Your task to perform on an android device: Search for seafood restaurants on Google Maps Image 0: 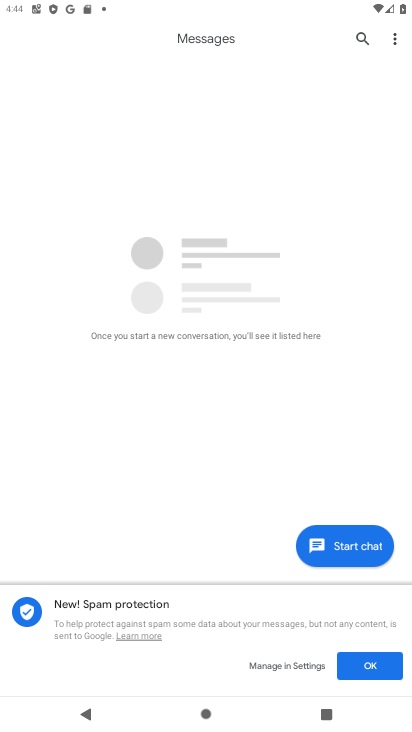
Step 0: press home button
Your task to perform on an android device: Search for seafood restaurants on Google Maps Image 1: 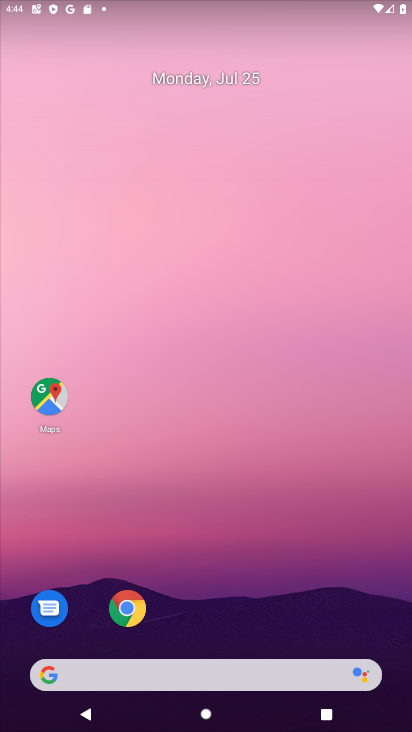
Step 1: click (46, 396)
Your task to perform on an android device: Search for seafood restaurants on Google Maps Image 2: 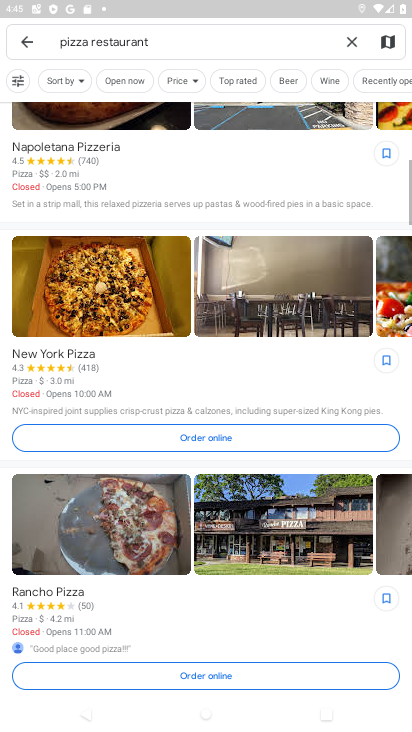
Step 2: click (353, 41)
Your task to perform on an android device: Search for seafood restaurants on Google Maps Image 3: 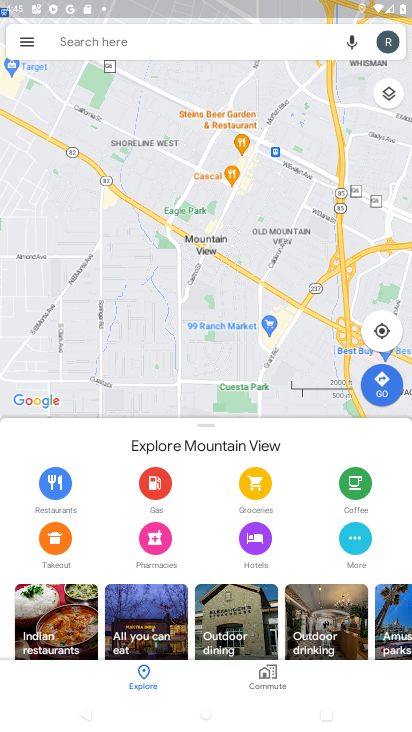
Step 3: click (109, 41)
Your task to perform on an android device: Search for seafood restaurants on Google Maps Image 4: 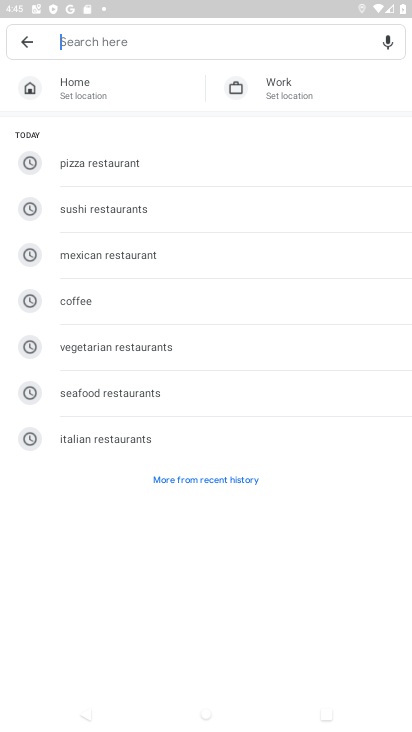
Step 4: click (74, 41)
Your task to perform on an android device: Search for seafood restaurants on Google Maps Image 5: 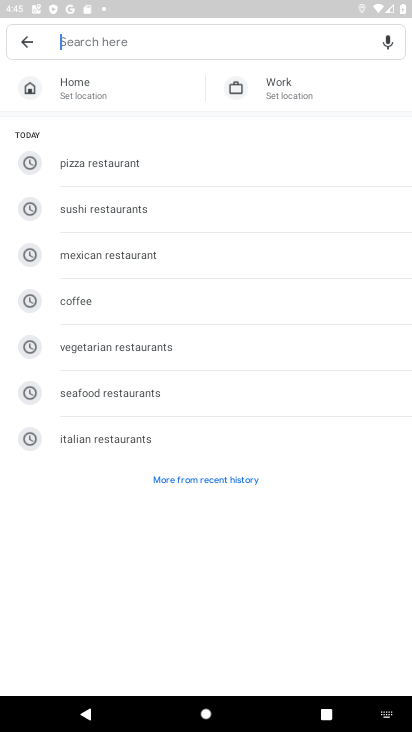
Step 5: click (126, 396)
Your task to perform on an android device: Search for seafood restaurants on Google Maps Image 6: 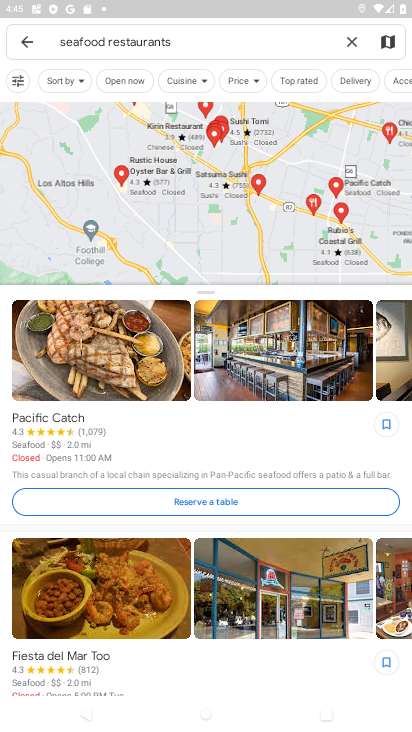
Step 6: drag from (217, 524) to (292, 109)
Your task to perform on an android device: Search for seafood restaurants on Google Maps Image 7: 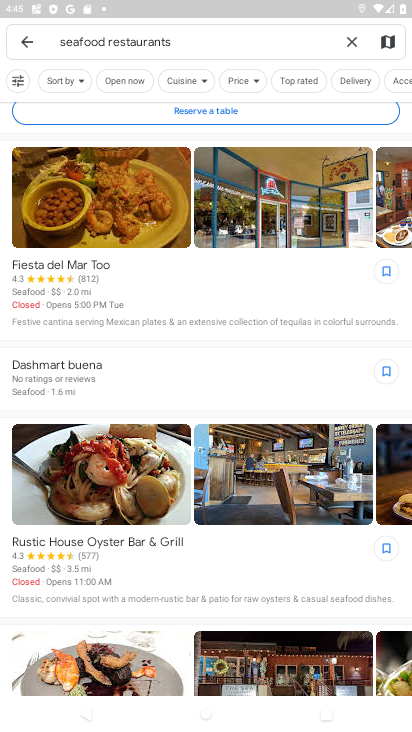
Step 7: click (293, 110)
Your task to perform on an android device: Search for seafood restaurants on Google Maps Image 8: 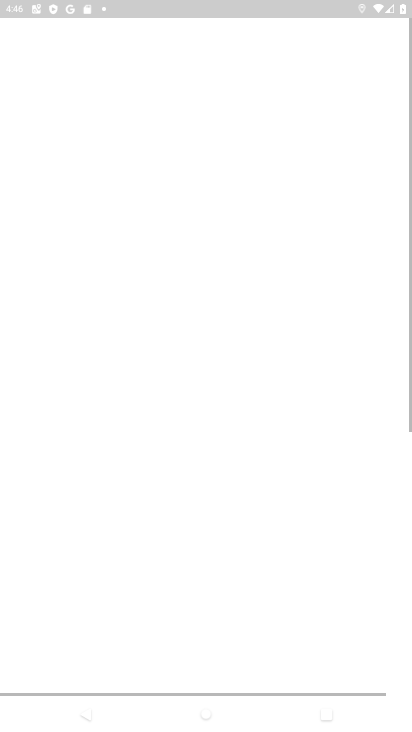
Step 8: task complete